Your task to perform on an android device: all mails in gmail Image 0: 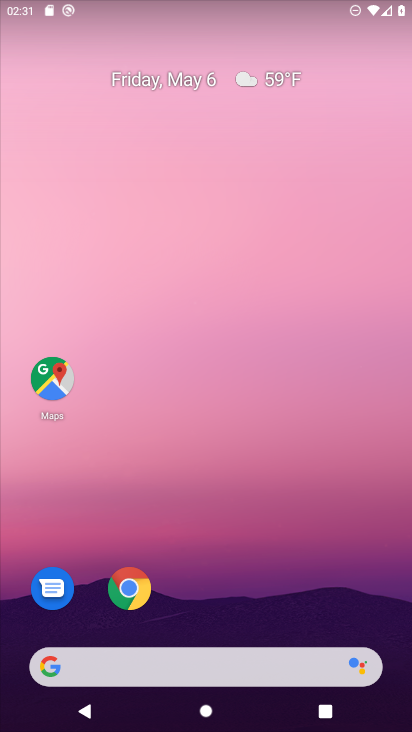
Step 0: drag from (229, 630) to (158, 100)
Your task to perform on an android device: all mails in gmail Image 1: 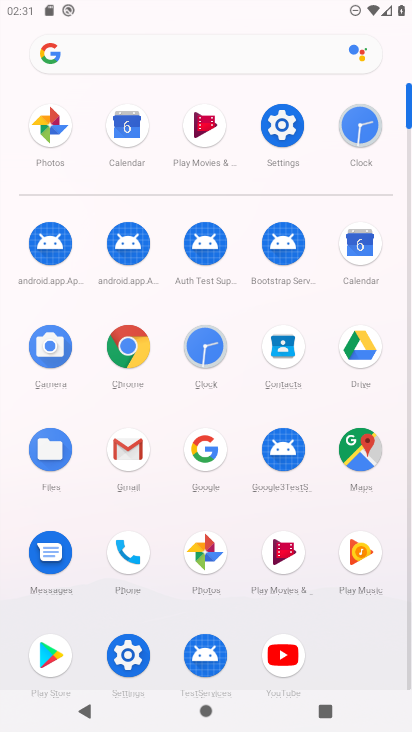
Step 1: click (132, 440)
Your task to perform on an android device: all mails in gmail Image 2: 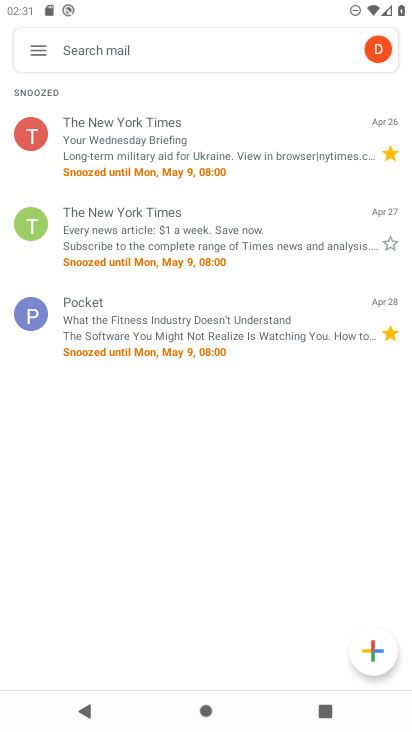
Step 2: click (34, 60)
Your task to perform on an android device: all mails in gmail Image 3: 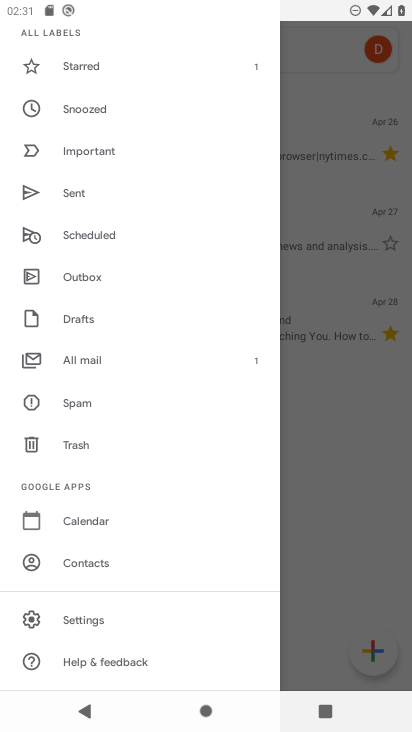
Step 3: drag from (89, 104) to (105, 286)
Your task to perform on an android device: all mails in gmail Image 4: 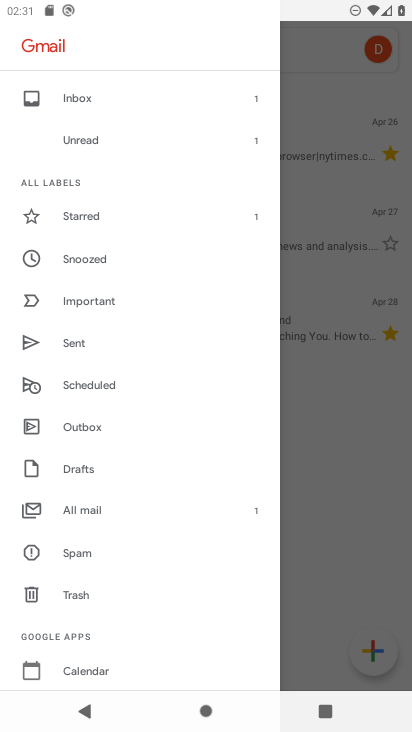
Step 4: click (73, 496)
Your task to perform on an android device: all mails in gmail Image 5: 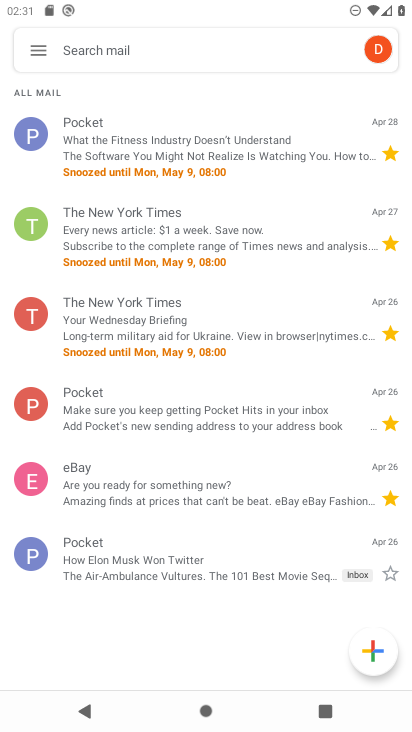
Step 5: task complete